Your task to perform on an android device: Empty the shopping cart on amazon. Search for "apple airpods pro" on amazon, select the first entry, and add it to the cart. Image 0: 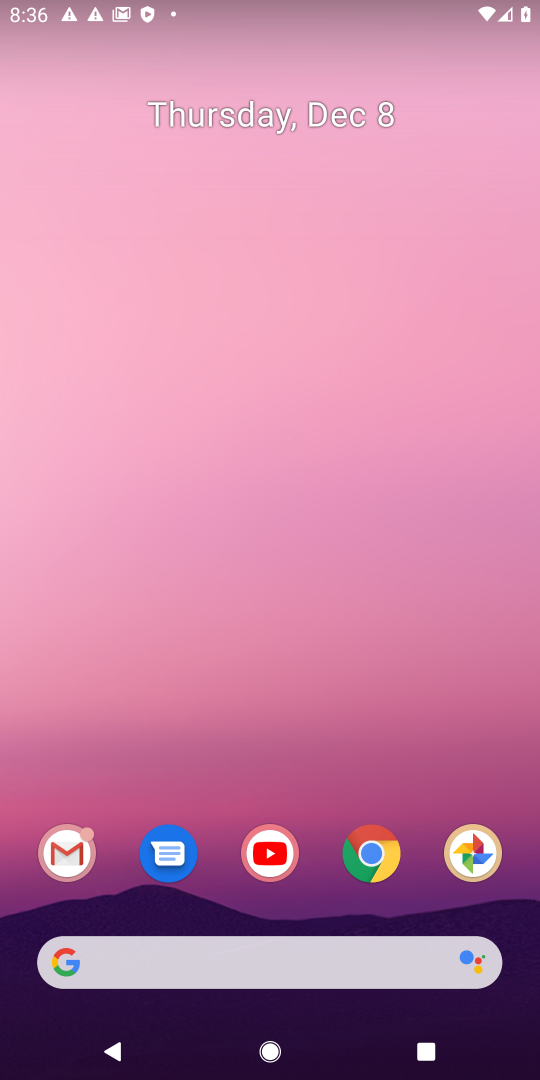
Step 0: click (142, 967)
Your task to perform on an android device: Empty the shopping cart on amazon. Search for "apple airpods pro" on amazon, select the first entry, and add it to the cart. Image 1: 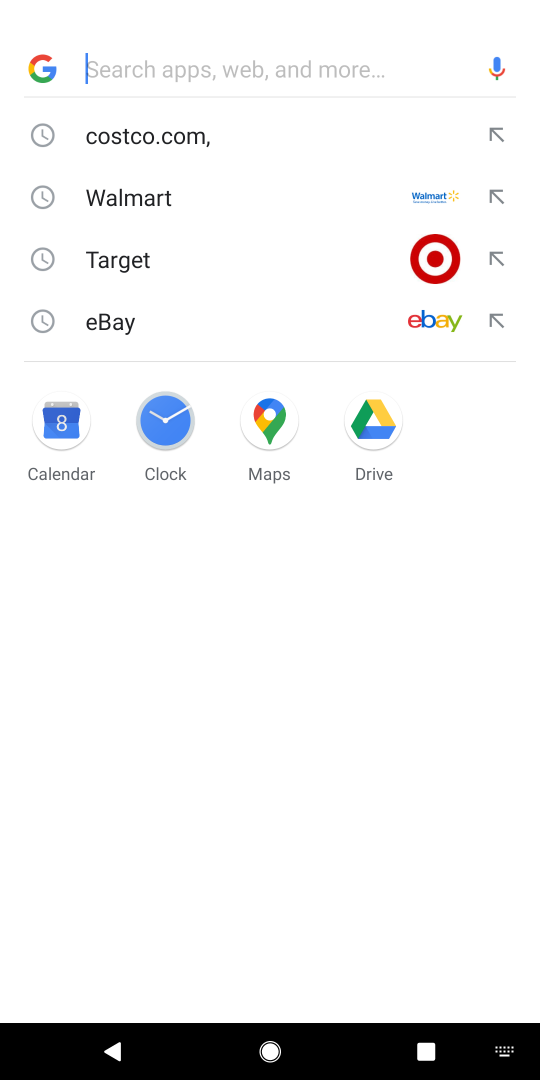
Step 1: type "amazon"
Your task to perform on an android device: Empty the shopping cart on amazon. Search for "apple airpods pro" on amazon, select the first entry, and add it to the cart. Image 2: 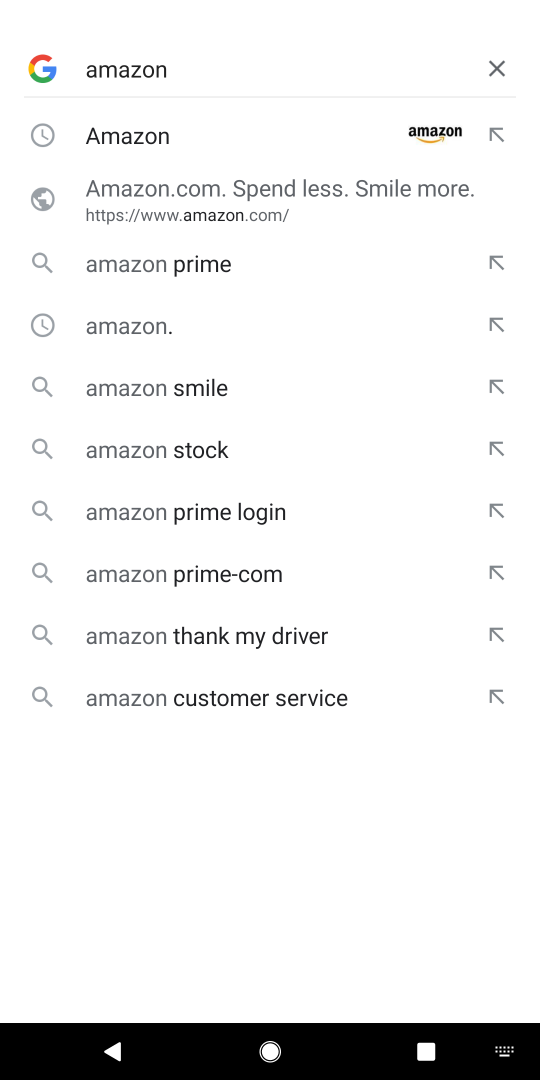
Step 2: click (135, 138)
Your task to perform on an android device: Empty the shopping cart on amazon. Search for "apple airpods pro" on amazon, select the first entry, and add it to the cart. Image 3: 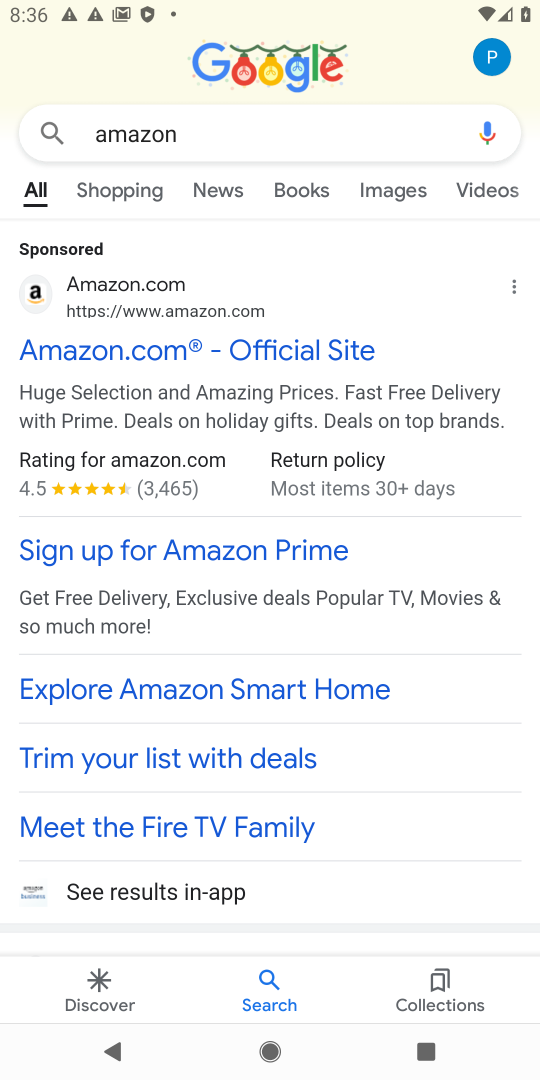
Step 3: click (97, 344)
Your task to perform on an android device: Empty the shopping cart on amazon. Search for "apple airpods pro" on amazon, select the first entry, and add it to the cart. Image 4: 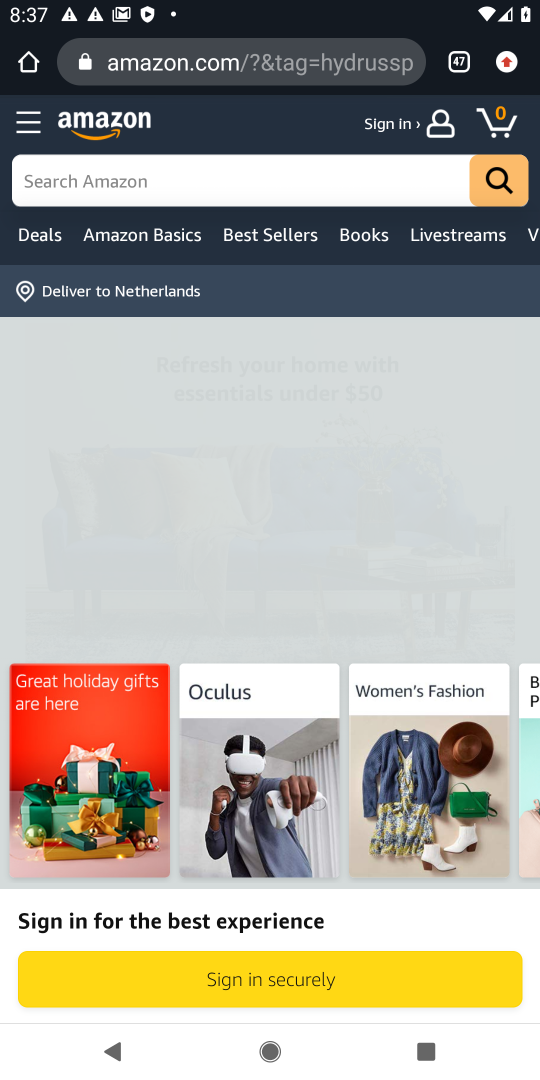
Step 4: click (299, 194)
Your task to perform on an android device: Empty the shopping cart on amazon. Search for "apple airpods pro" on amazon, select the first entry, and add it to the cart. Image 5: 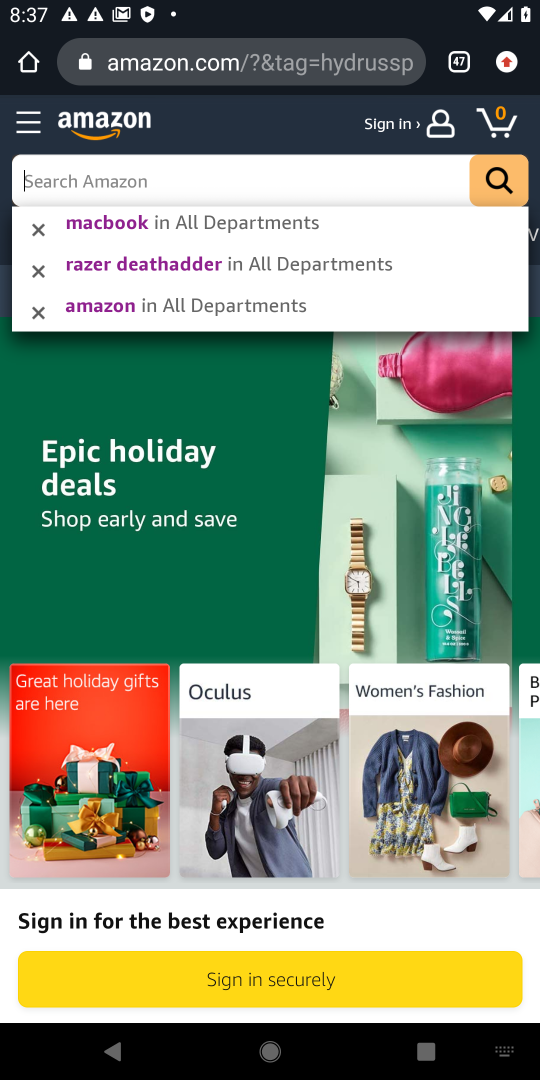
Step 5: type "apple airpods pro"
Your task to perform on an android device: Empty the shopping cart on amazon. Search for "apple airpods pro" on amazon, select the first entry, and add it to the cart. Image 6: 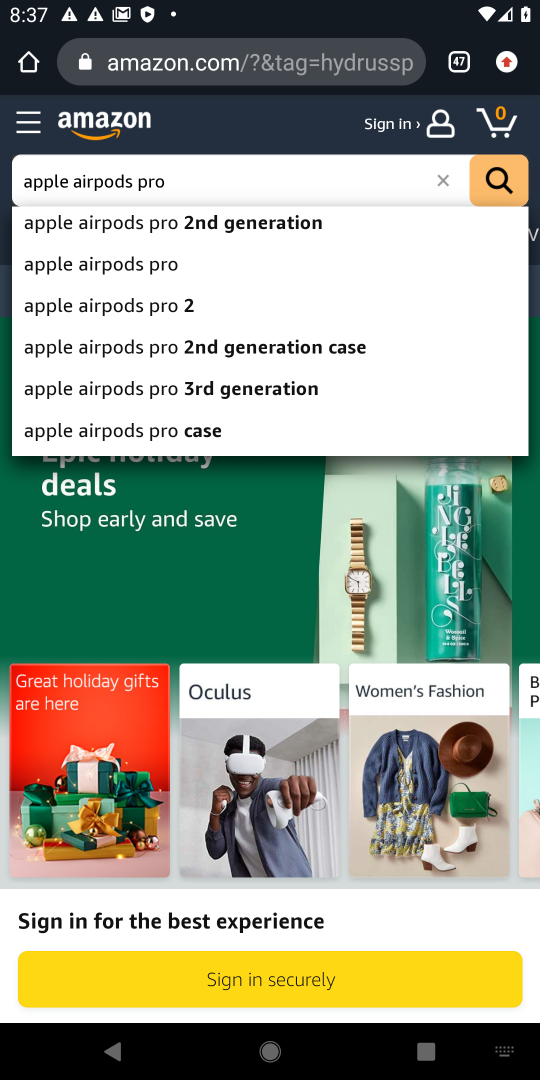
Step 6: click (495, 175)
Your task to perform on an android device: Empty the shopping cart on amazon. Search for "apple airpods pro" on amazon, select the first entry, and add it to the cart. Image 7: 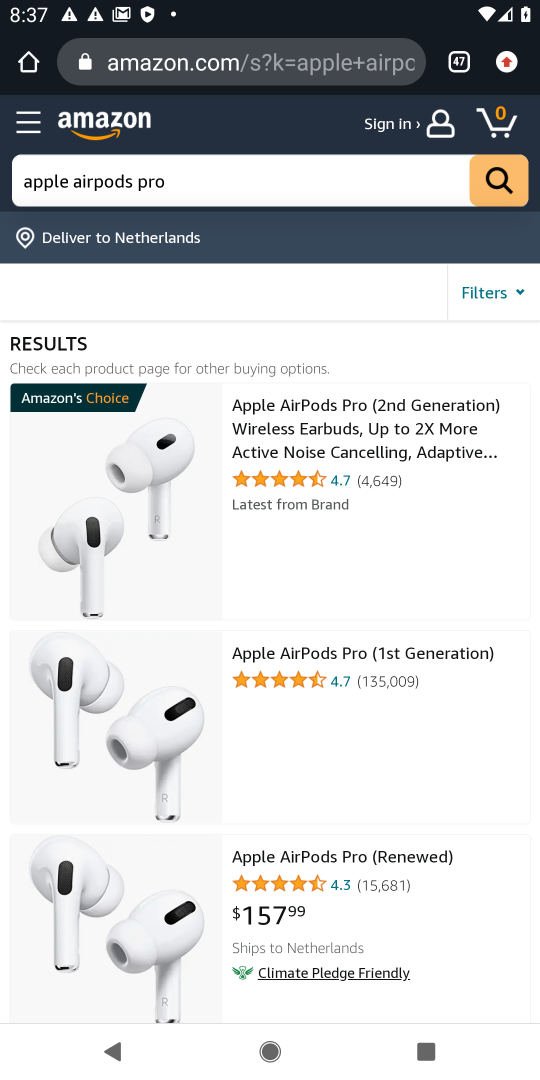
Step 7: click (319, 427)
Your task to perform on an android device: Empty the shopping cart on amazon. Search for "apple airpods pro" on amazon, select the first entry, and add it to the cart. Image 8: 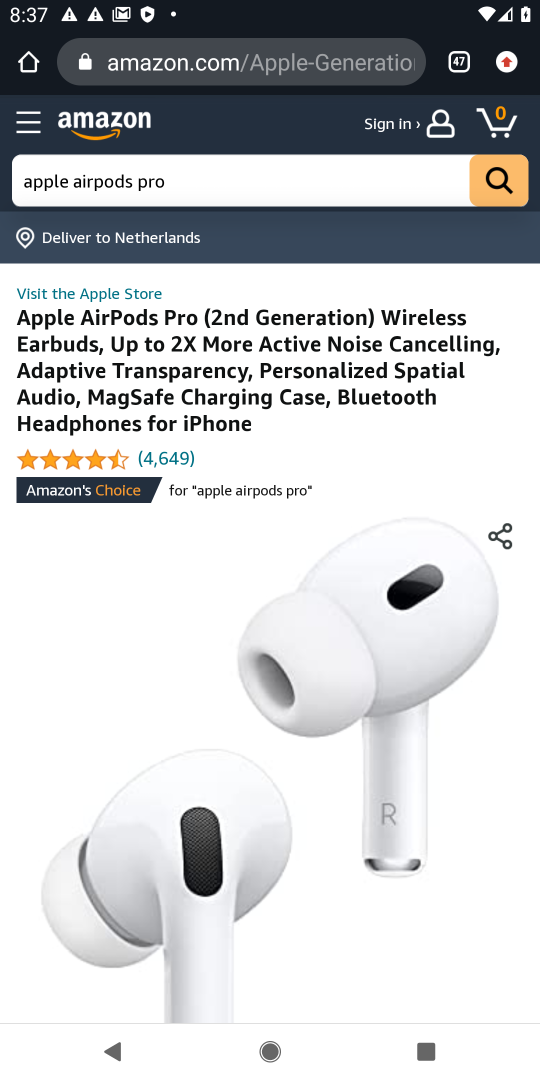
Step 8: drag from (337, 893) to (317, 560)
Your task to perform on an android device: Empty the shopping cart on amazon. Search for "apple airpods pro" on amazon, select the first entry, and add it to the cart. Image 9: 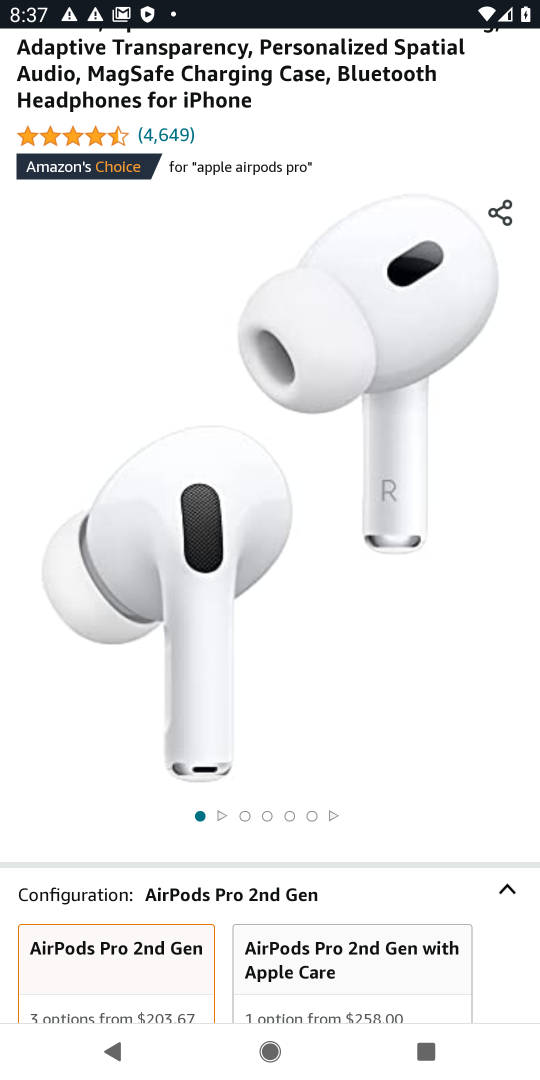
Step 9: drag from (360, 731) to (349, 519)
Your task to perform on an android device: Empty the shopping cart on amazon. Search for "apple airpods pro" on amazon, select the first entry, and add it to the cart. Image 10: 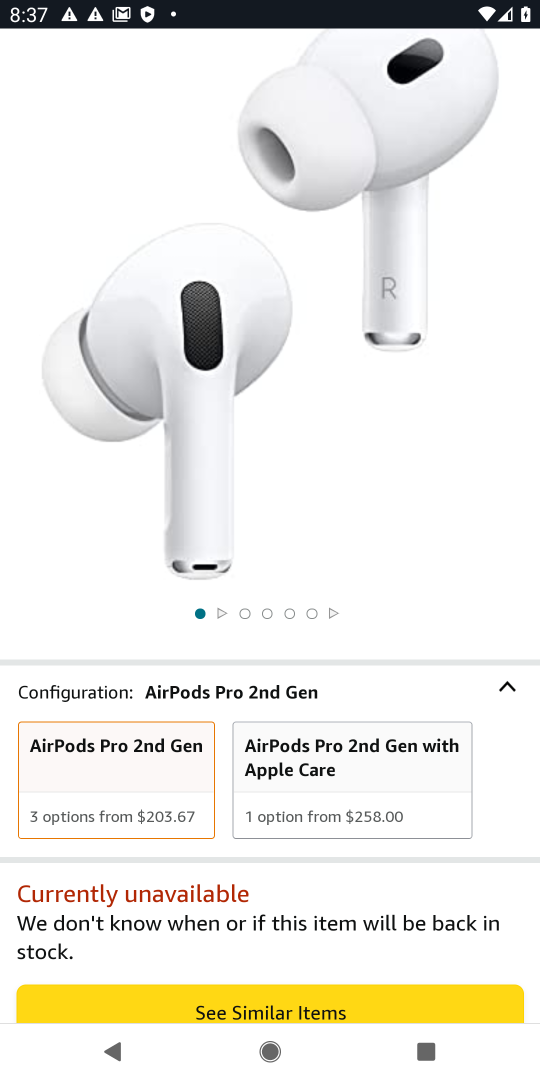
Step 10: drag from (391, 563) to (369, 318)
Your task to perform on an android device: Empty the shopping cart on amazon. Search for "apple airpods pro" on amazon, select the first entry, and add it to the cart. Image 11: 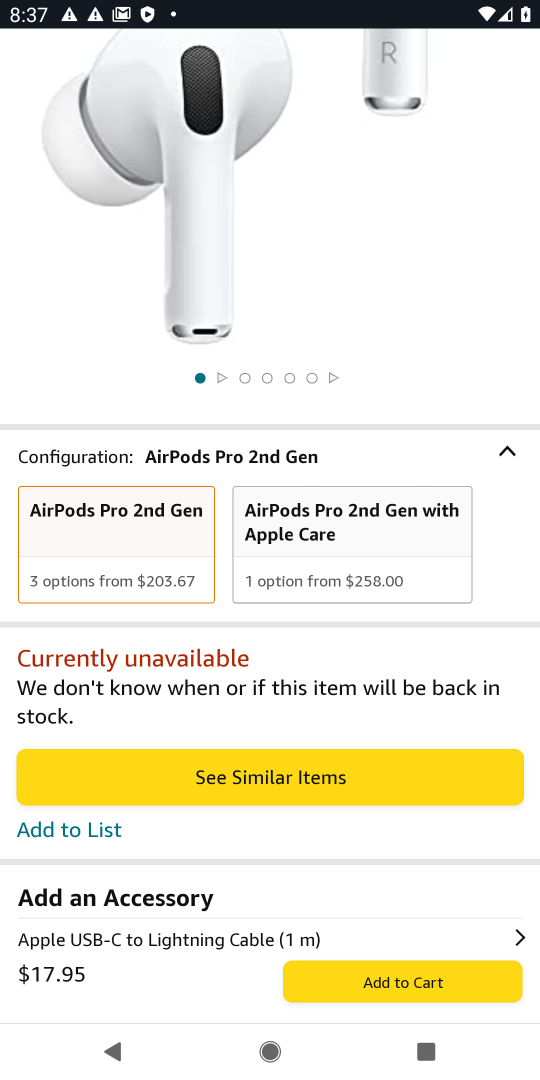
Step 11: click (357, 990)
Your task to perform on an android device: Empty the shopping cart on amazon. Search for "apple airpods pro" on amazon, select the first entry, and add it to the cart. Image 12: 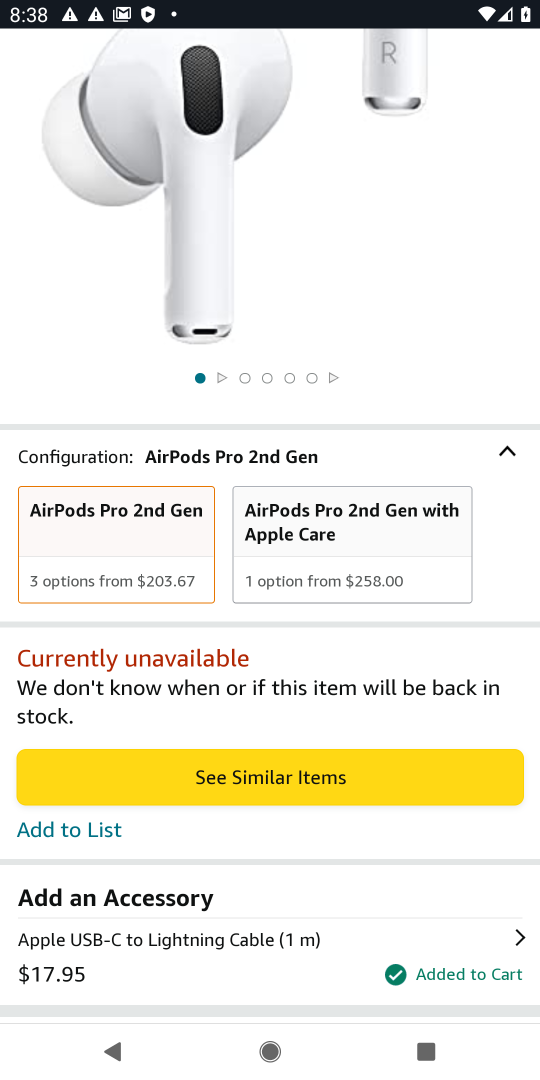
Step 12: task complete